Your task to perform on an android device: Open settings on Google Maps Image 0: 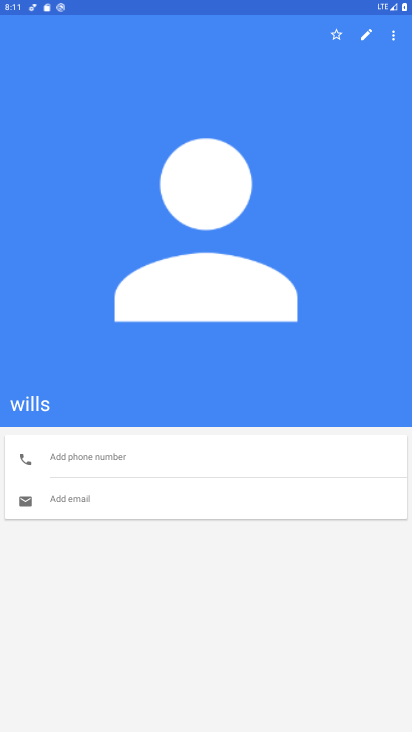
Step 0: press home button
Your task to perform on an android device: Open settings on Google Maps Image 1: 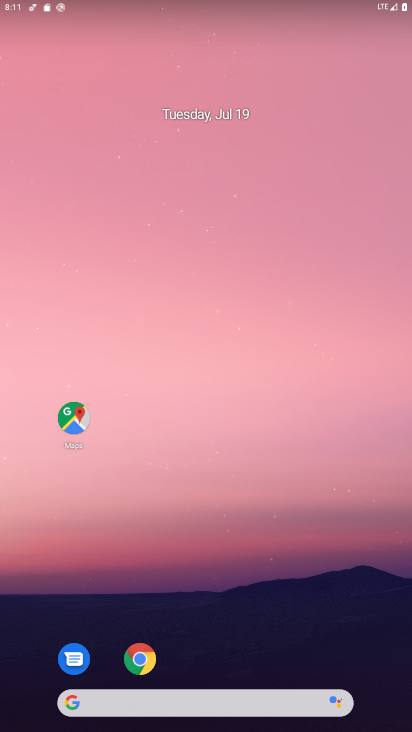
Step 1: drag from (224, 665) to (212, 9)
Your task to perform on an android device: Open settings on Google Maps Image 2: 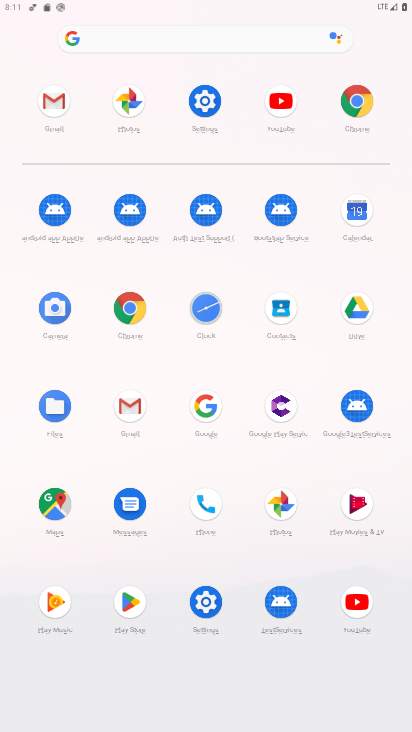
Step 2: click (56, 512)
Your task to perform on an android device: Open settings on Google Maps Image 3: 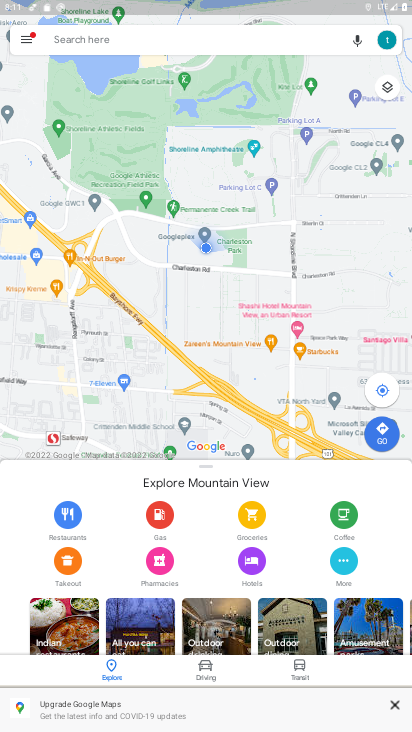
Step 3: click (21, 39)
Your task to perform on an android device: Open settings on Google Maps Image 4: 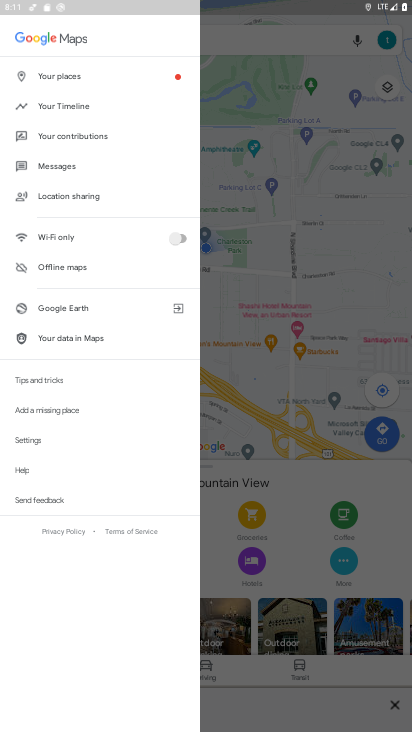
Step 4: click (36, 438)
Your task to perform on an android device: Open settings on Google Maps Image 5: 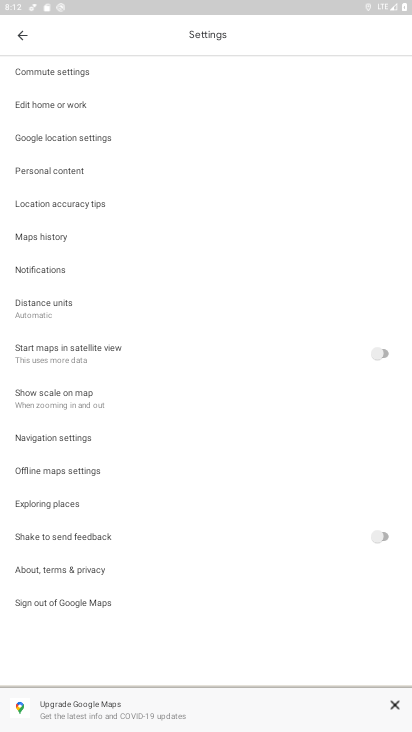
Step 5: task complete